Your task to perform on an android device: change the clock display to analog Image 0: 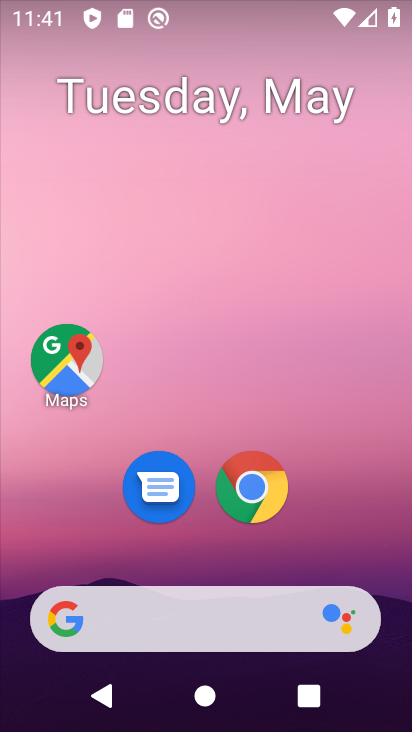
Step 0: drag from (340, 473) to (291, 286)
Your task to perform on an android device: change the clock display to analog Image 1: 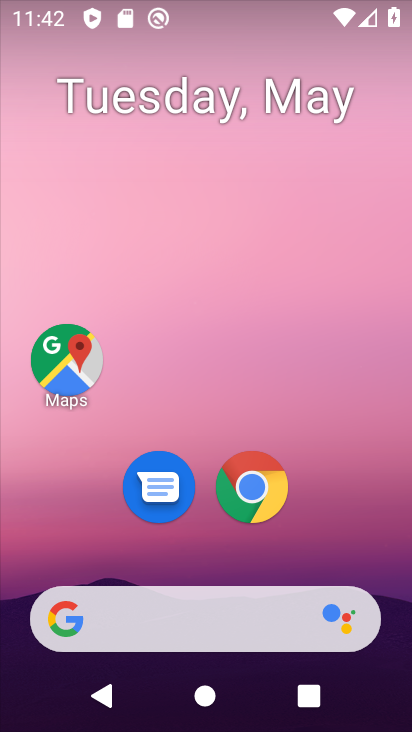
Step 1: drag from (343, 545) to (288, 130)
Your task to perform on an android device: change the clock display to analog Image 2: 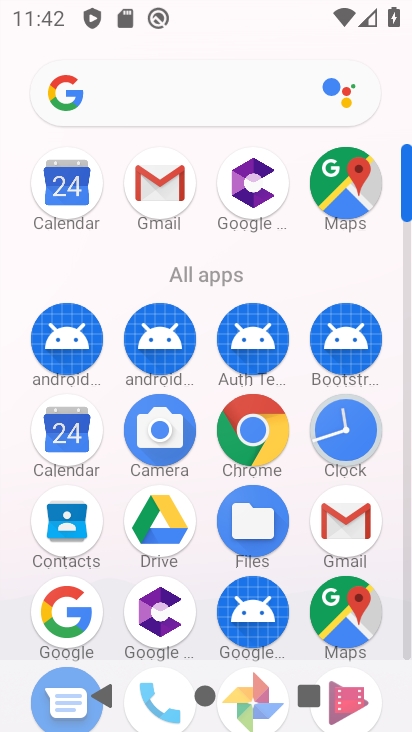
Step 2: click (336, 431)
Your task to perform on an android device: change the clock display to analog Image 3: 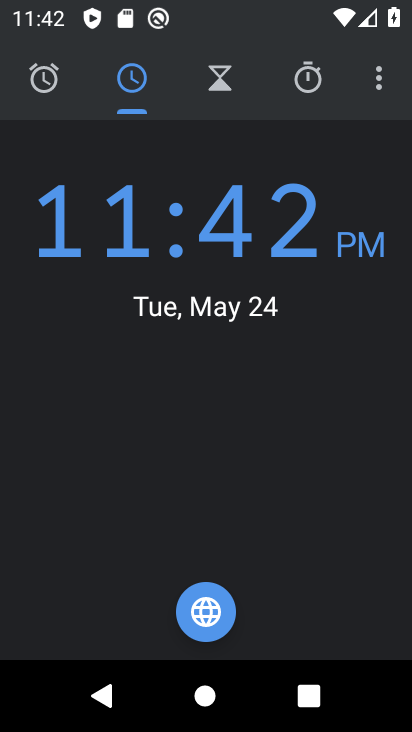
Step 3: click (378, 87)
Your task to perform on an android device: change the clock display to analog Image 4: 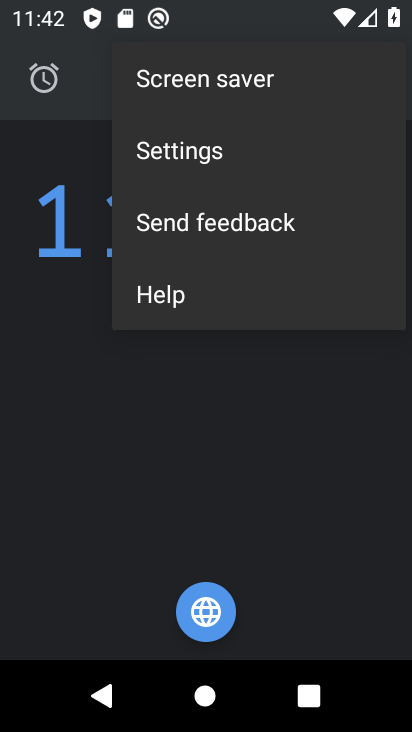
Step 4: click (180, 169)
Your task to perform on an android device: change the clock display to analog Image 5: 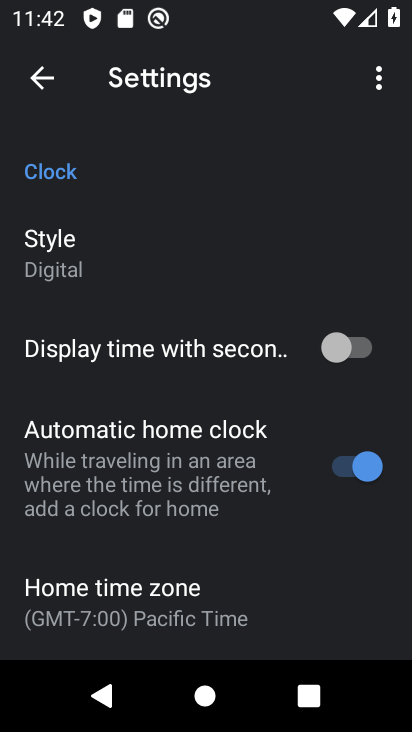
Step 5: click (88, 242)
Your task to perform on an android device: change the clock display to analog Image 6: 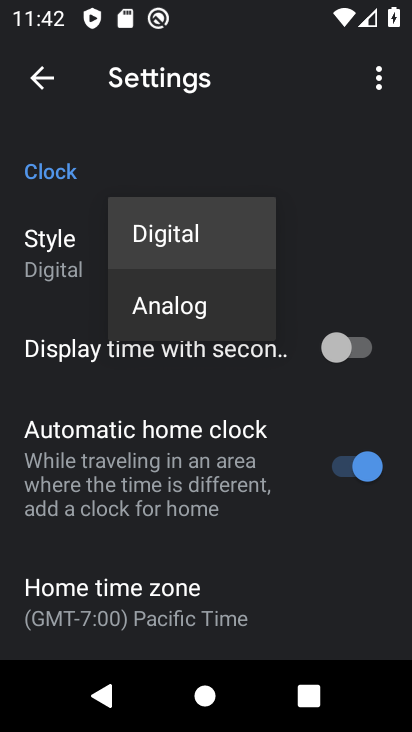
Step 6: click (137, 307)
Your task to perform on an android device: change the clock display to analog Image 7: 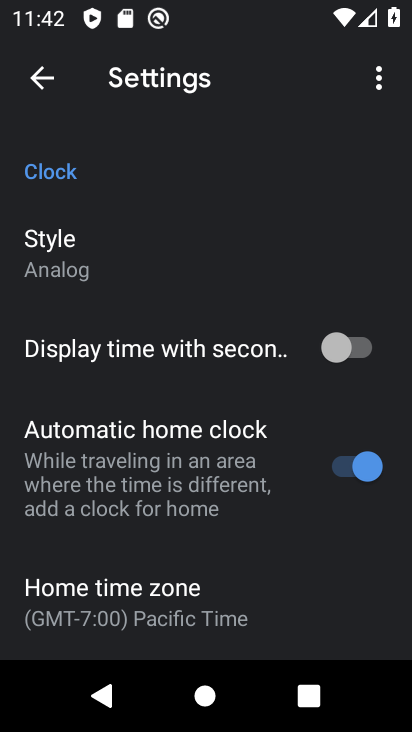
Step 7: task complete